Your task to perform on an android device: Open privacy settings Image 0: 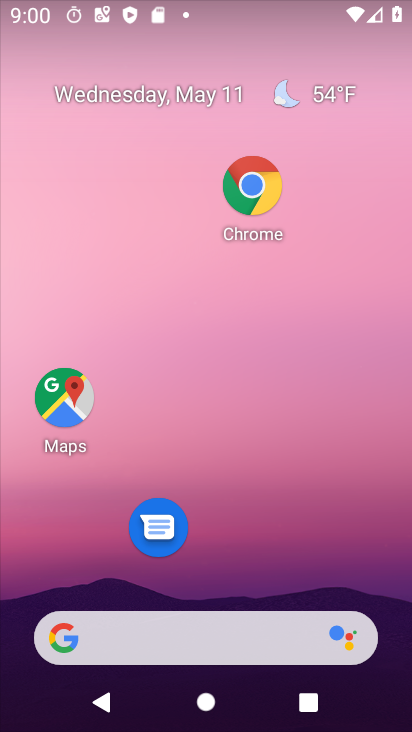
Step 0: drag from (254, 546) to (274, 66)
Your task to perform on an android device: Open privacy settings Image 1: 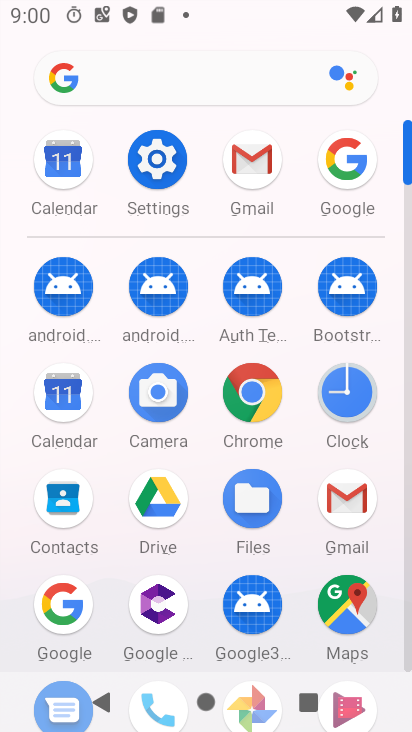
Step 1: click (157, 156)
Your task to perform on an android device: Open privacy settings Image 2: 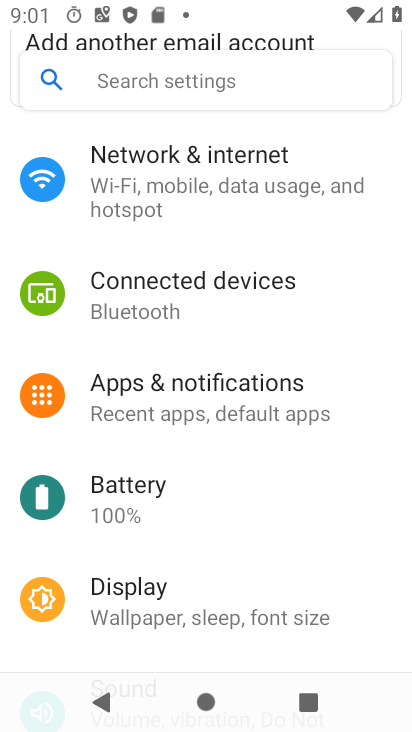
Step 2: drag from (247, 548) to (289, 68)
Your task to perform on an android device: Open privacy settings Image 3: 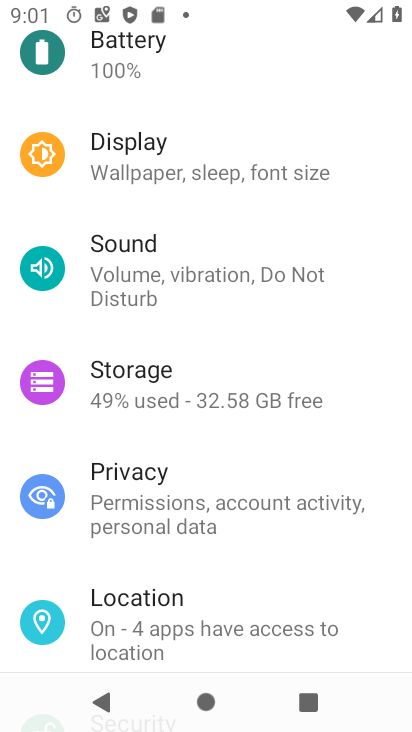
Step 3: click (147, 473)
Your task to perform on an android device: Open privacy settings Image 4: 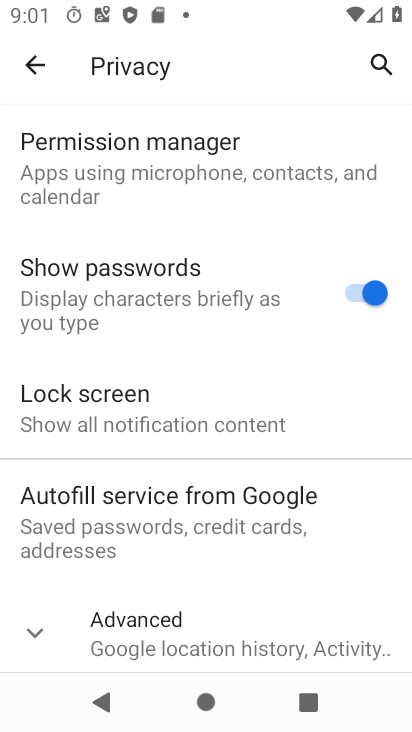
Step 4: task complete